Your task to perform on an android device: turn on location history Image 0: 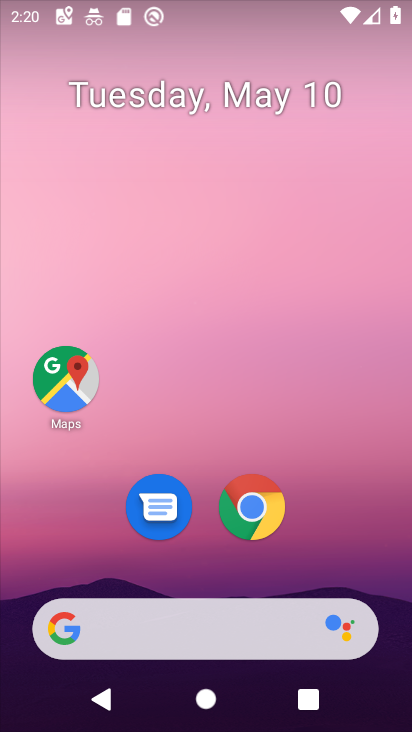
Step 0: drag from (144, 549) to (174, 297)
Your task to perform on an android device: turn on location history Image 1: 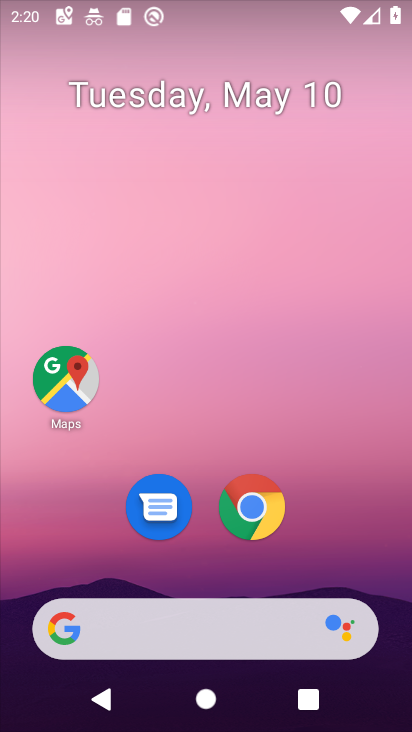
Step 1: drag from (190, 571) to (172, 115)
Your task to perform on an android device: turn on location history Image 2: 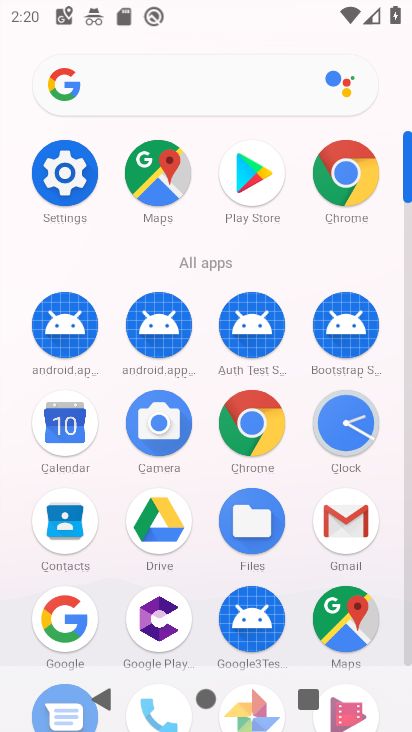
Step 2: click (62, 171)
Your task to perform on an android device: turn on location history Image 3: 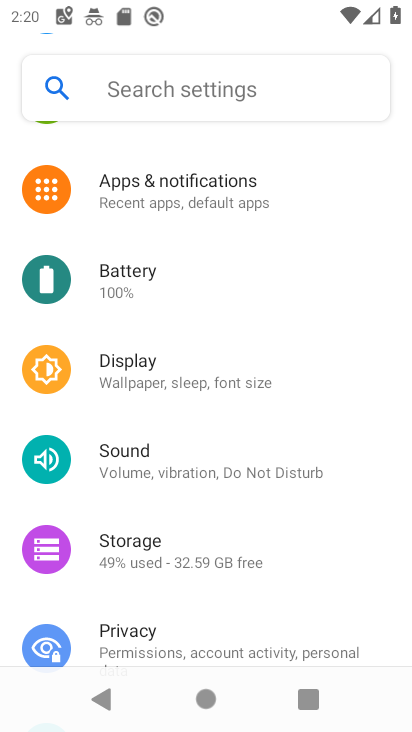
Step 3: drag from (211, 306) to (219, 204)
Your task to perform on an android device: turn on location history Image 4: 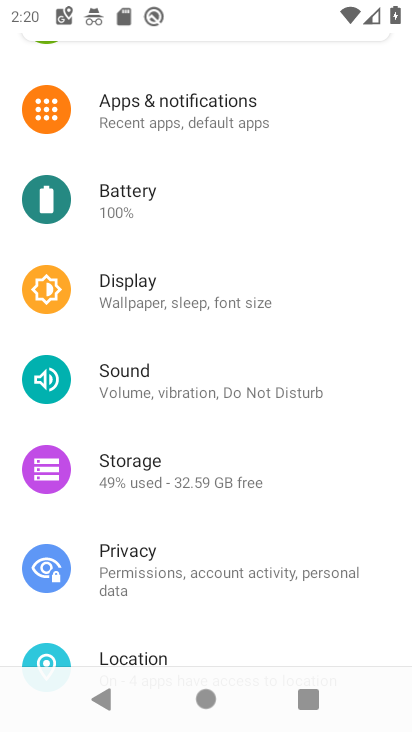
Step 4: drag from (196, 618) to (203, 363)
Your task to perform on an android device: turn on location history Image 5: 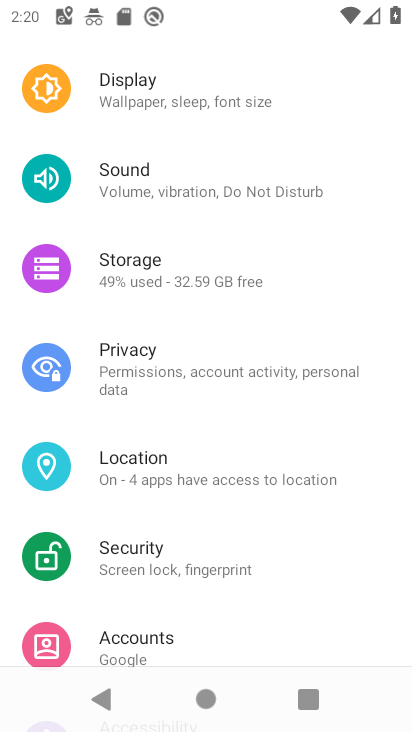
Step 5: click (169, 481)
Your task to perform on an android device: turn on location history Image 6: 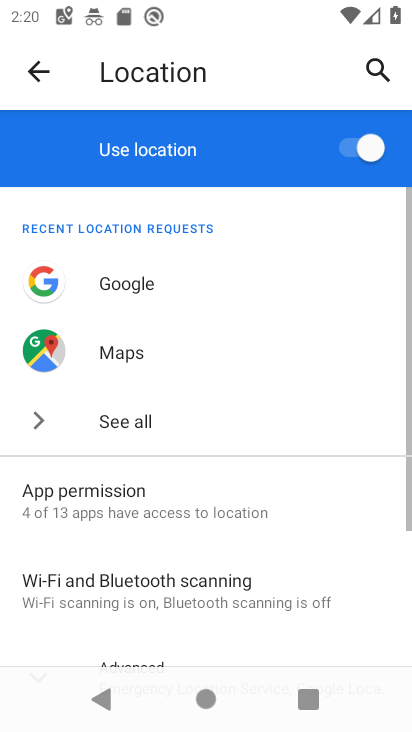
Step 6: drag from (191, 565) to (192, 325)
Your task to perform on an android device: turn on location history Image 7: 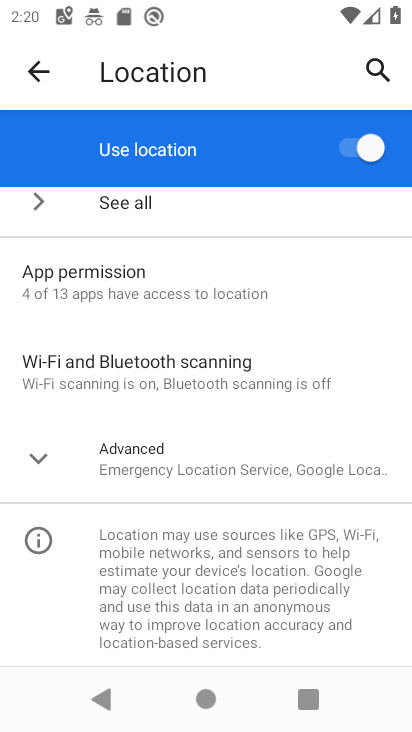
Step 7: click (40, 453)
Your task to perform on an android device: turn on location history Image 8: 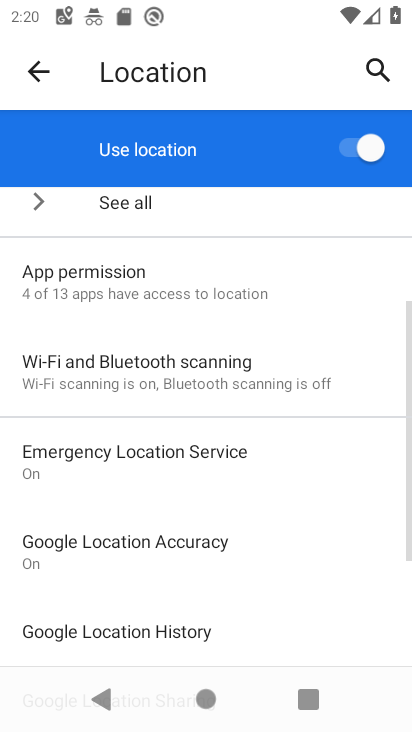
Step 8: drag from (134, 593) to (165, 406)
Your task to perform on an android device: turn on location history Image 9: 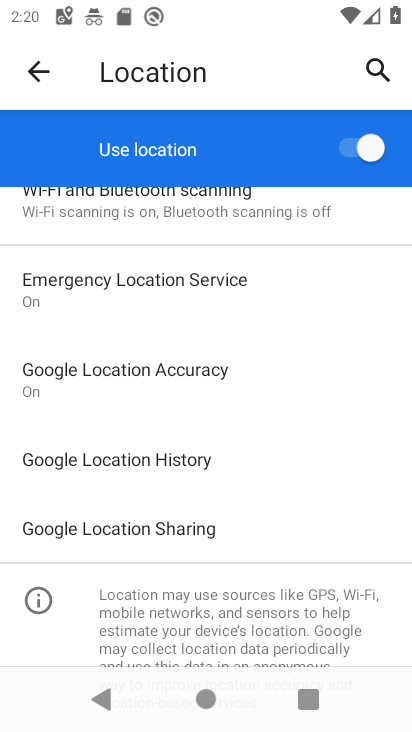
Step 9: click (130, 468)
Your task to perform on an android device: turn on location history Image 10: 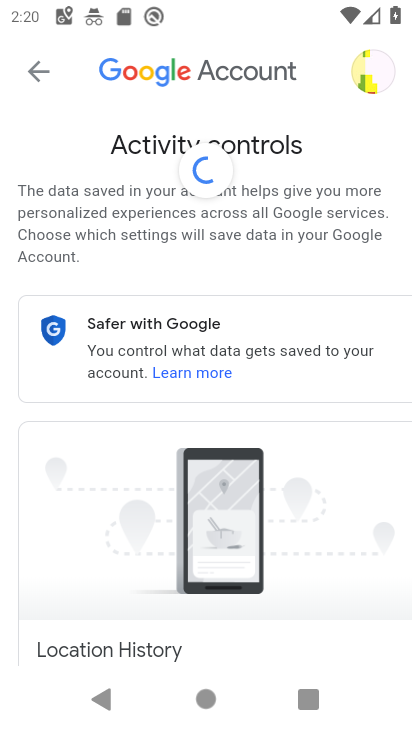
Step 10: drag from (141, 502) to (149, 242)
Your task to perform on an android device: turn on location history Image 11: 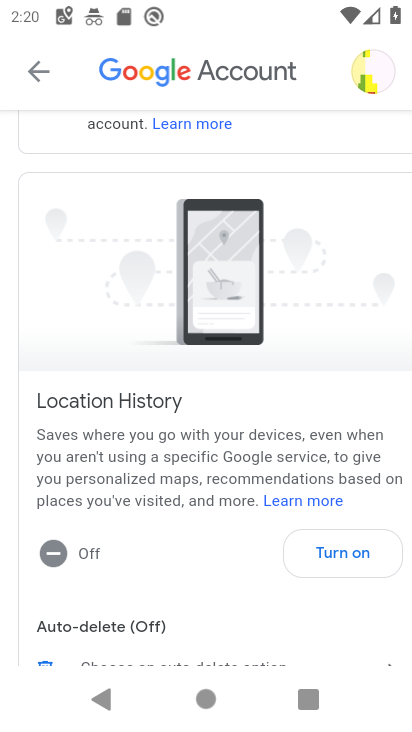
Step 11: click (338, 547)
Your task to perform on an android device: turn on location history Image 12: 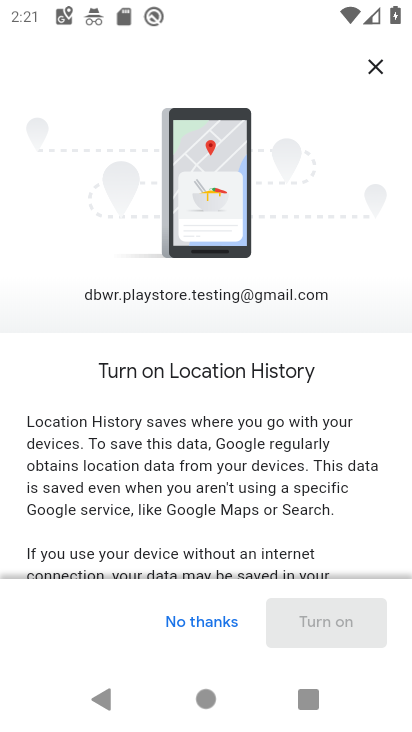
Step 12: click (217, 624)
Your task to perform on an android device: turn on location history Image 13: 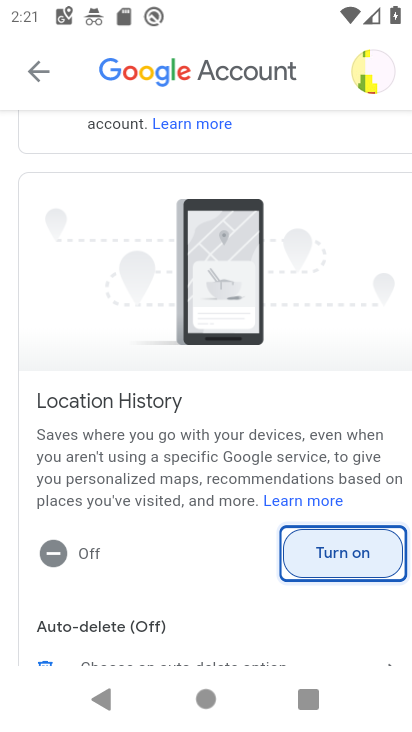
Step 13: task complete